Your task to perform on an android device: Open Google Maps and go to "Timeline" Image 0: 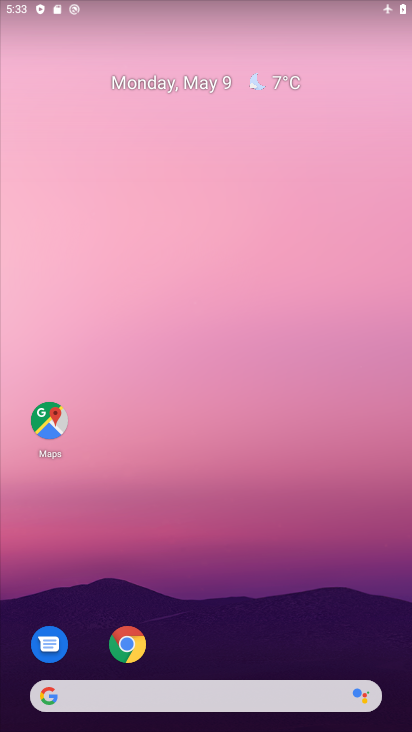
Step 0: click (49, 425)
Your task to perform on an android device: Open Google Maps and go to "Timeline" Image 1: 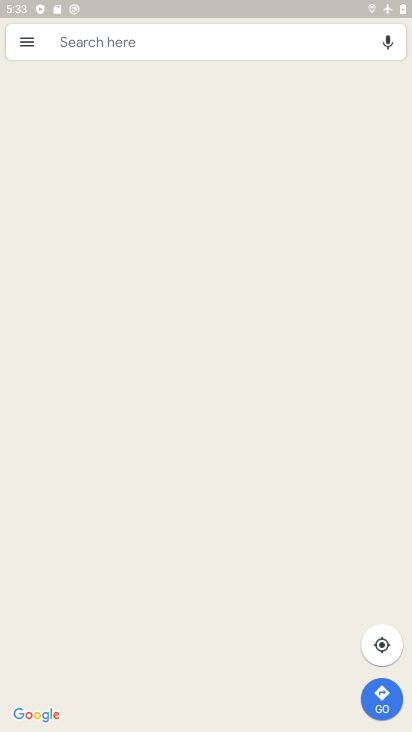
Step 1: click (25, 37)
Your task to perform on an android device: Open Google Maps and go to "Timeline" Image 2: 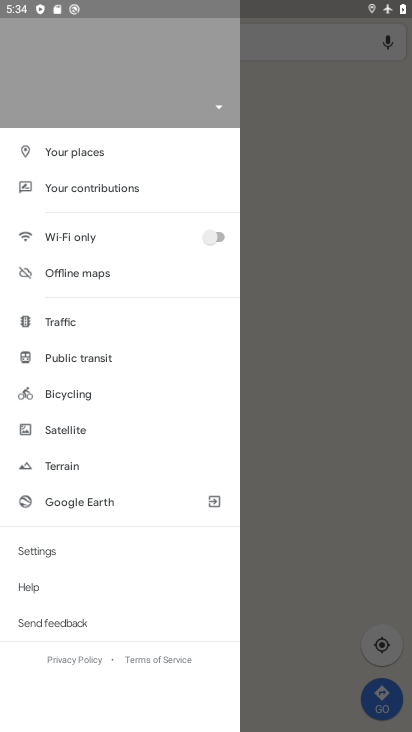
Step 2: drag from (169, 506) to (157, 564)
Your task to perform on an android device: Open Google Maps and go to "Timeline" Image 3: 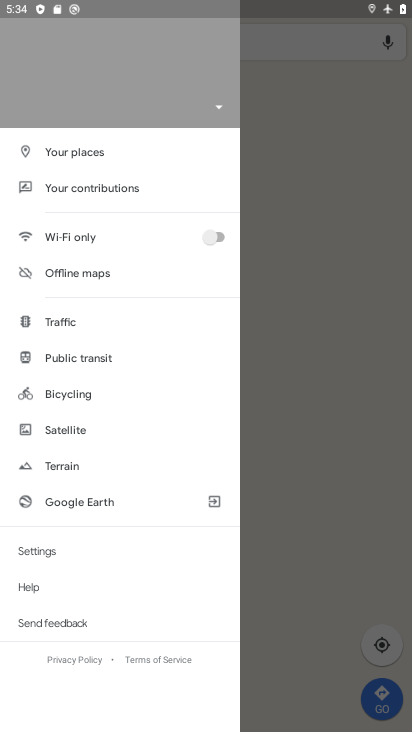
Step 3: click (223, 105)
Your task to perform on an android device: Open Google Maps and go to "Timeline" Image 4: 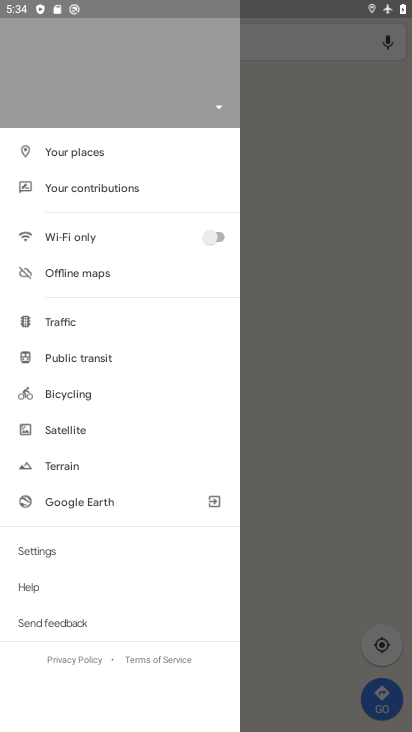
Step 4: click (336, 181)
Your task to perform on an android device: Open Google Maps and go to "Timeline" Image 5: 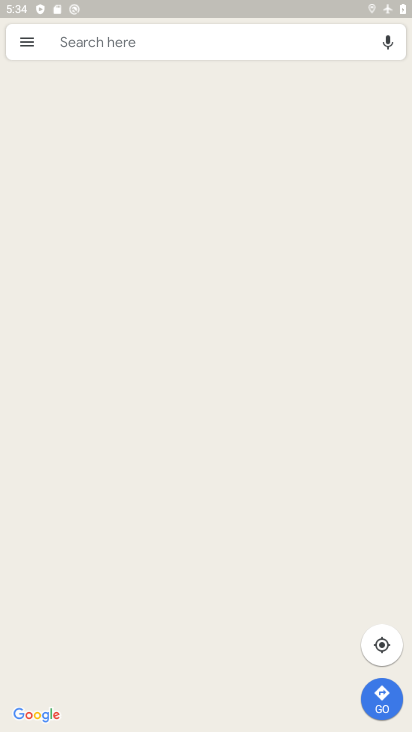
Step 5: click (24, 36)
Your task to perform on an android device: Open Google Maps and go to "Timeline" Image 6: 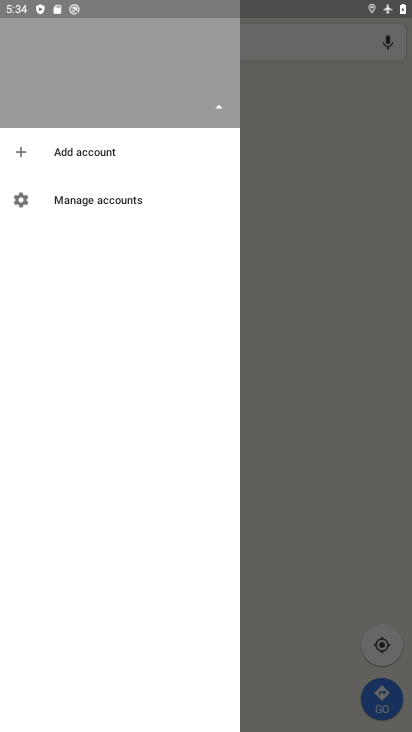
Step 6: task complete